Your task to perform on an android device: Open ESPN.com Image 0: 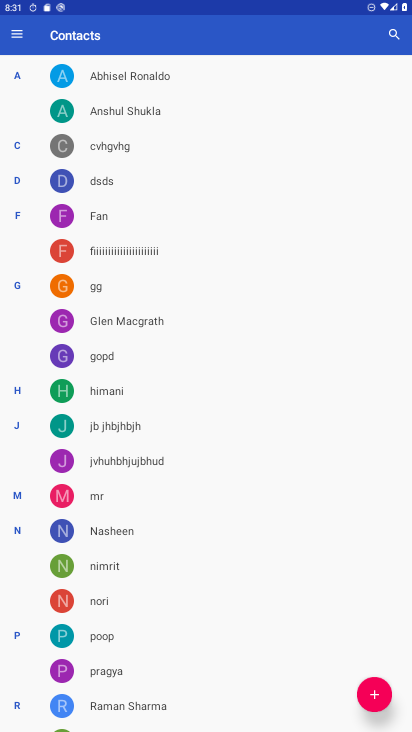
Step 0: press home button
Your task to perform on an android device: Open ESPN.com Image 1: 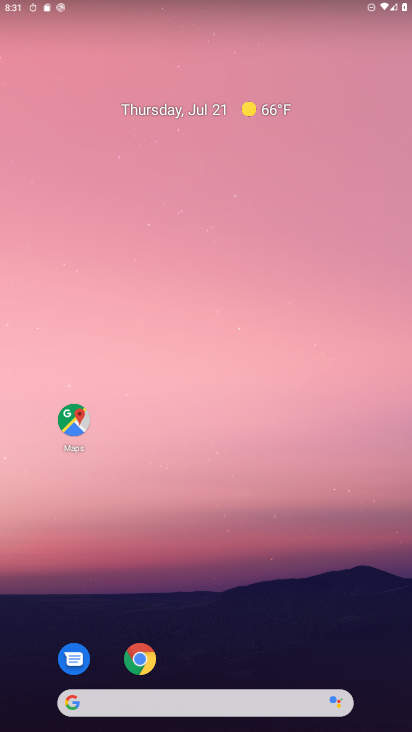
Step 1: drag from (198, 642) to (198, 542)
Your task to perform on an android device: Open ESPN.com Image 2: 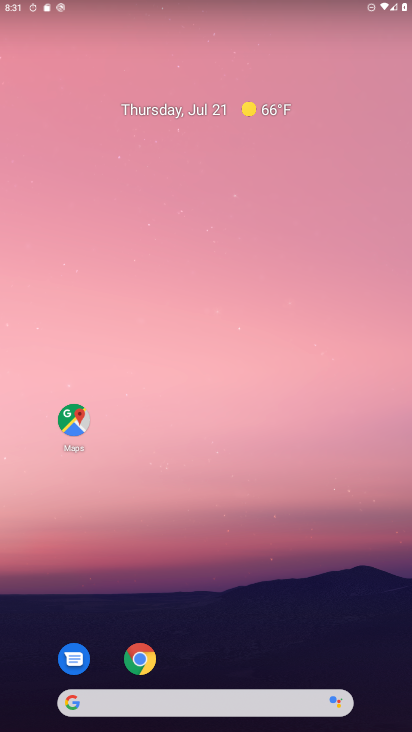
Step 2: drag from (193, 651) to (205, 223)
Your task to perform on an android device: Open ESPN.com Image 3: 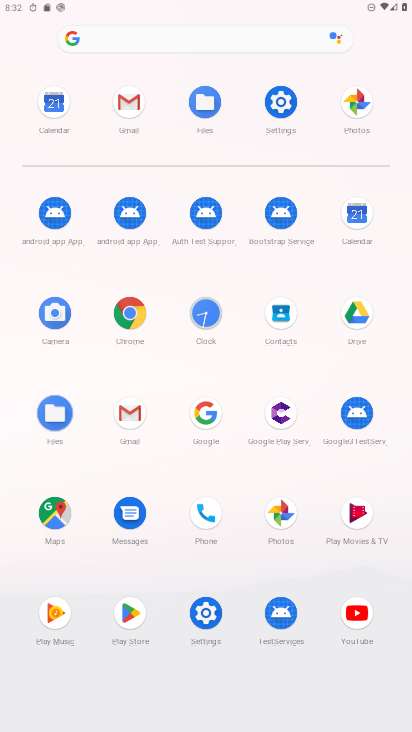
Step 3: click (133, 306)
Your task to perform on an android device: Open ESPN.com Image 4: 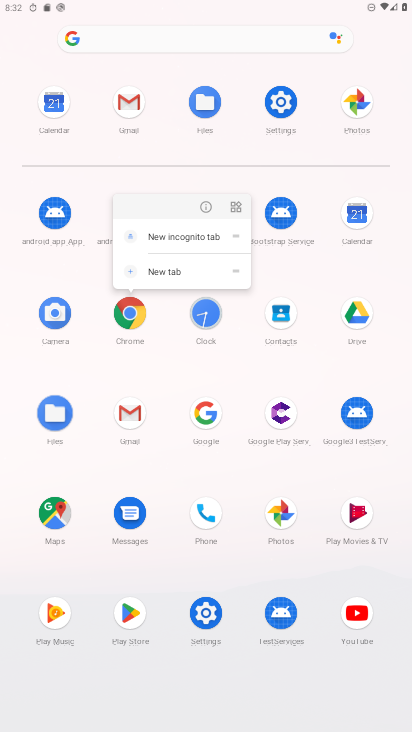
Step 4: click (208, 207)
Your task to perform on an android device: Open ESPN.com Image 5: 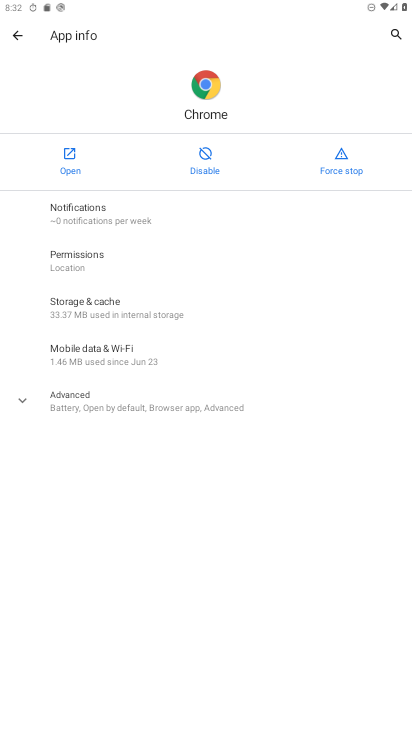
Step 5: click (68, 153)
Your task to perform on an android device: Open ESPN.com Image 6: 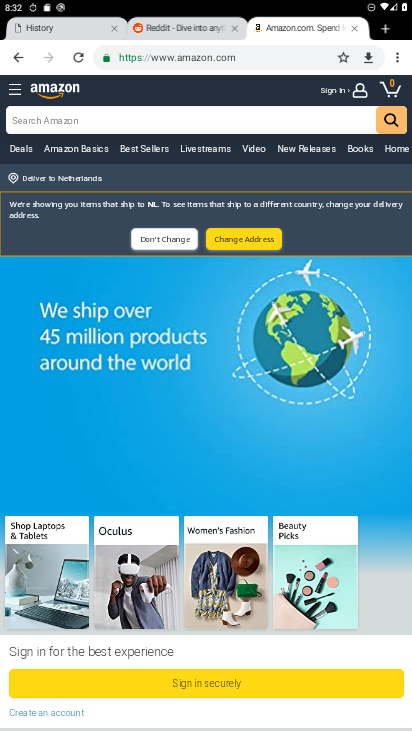
Step 6: click (157, 51)
Your task to perform on an android device: Open ESPN.com Image 7: 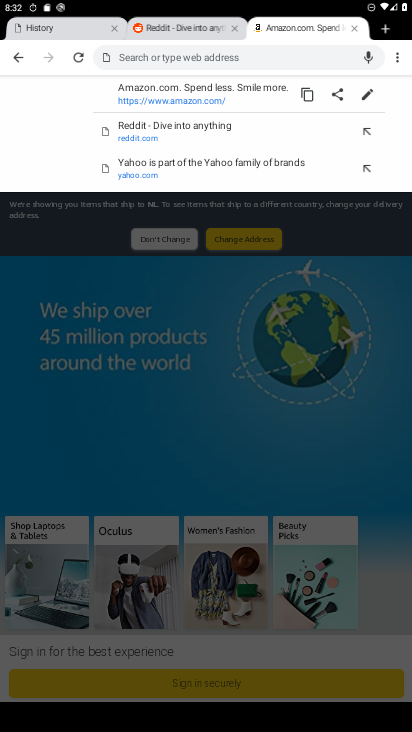
Step 7: type "espn.com"
Your task to perform on an android device: Open ESPN.com Image 8: 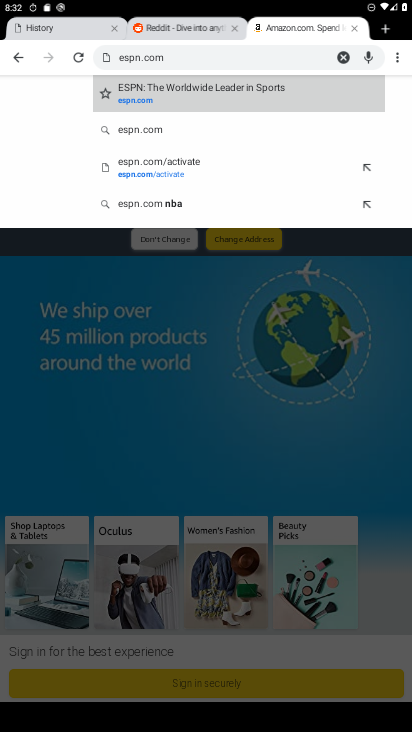
Step 8: click (138, 96)
Your task to perform on an android device: Open ESPN.com Image 9: 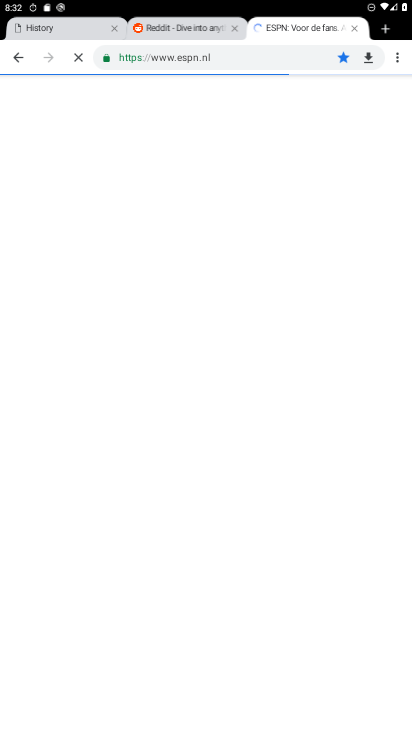
Step 9: task complete